Your task to perform on an android device: star an email in the gmail app Image 0: 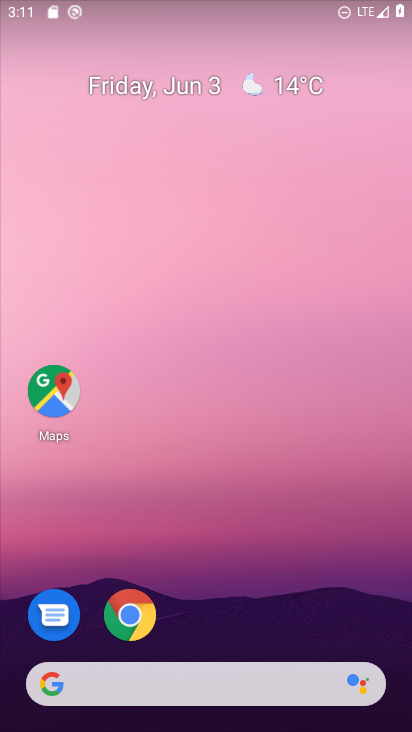
Step 0: drag from (179, 620) to (246, 84)
Your task to perform on an android device: star an email in the gmail app Image 1: 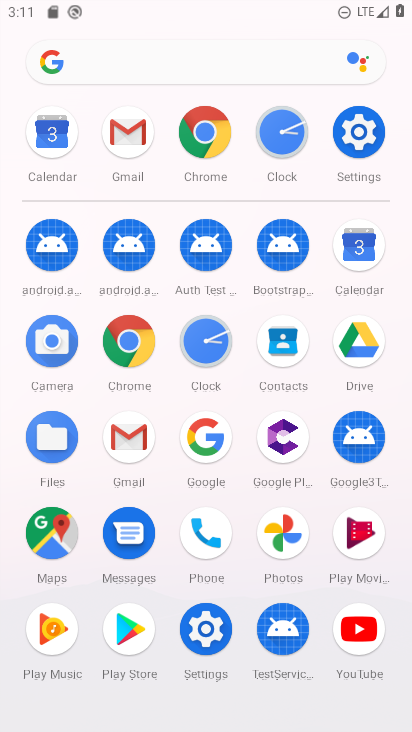
Step 1: click (144, 432)
Your task to perform on an android device: star an email in the gmail app Image 2: 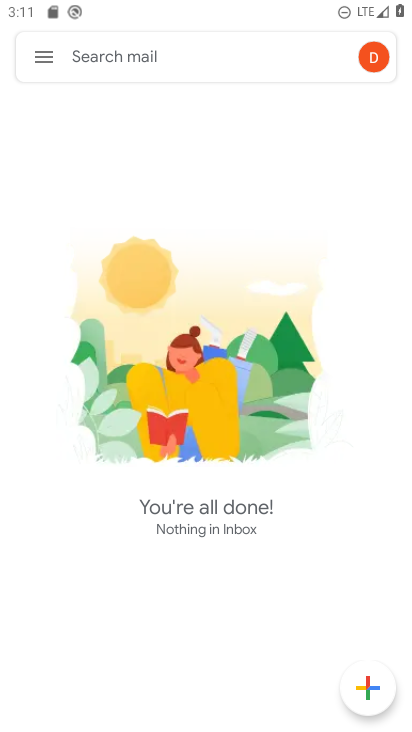
Step 2: drag from (171, 574) to (206, 197)
Your task to perform on an android device: star an email in the gmail app Image 3: 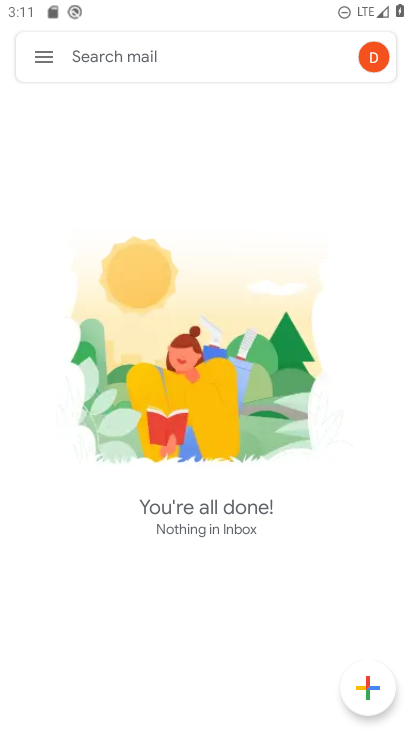
Step 3: click (49, 51)
Your task to perform on an android device: star an email in the gmail app Image 4: 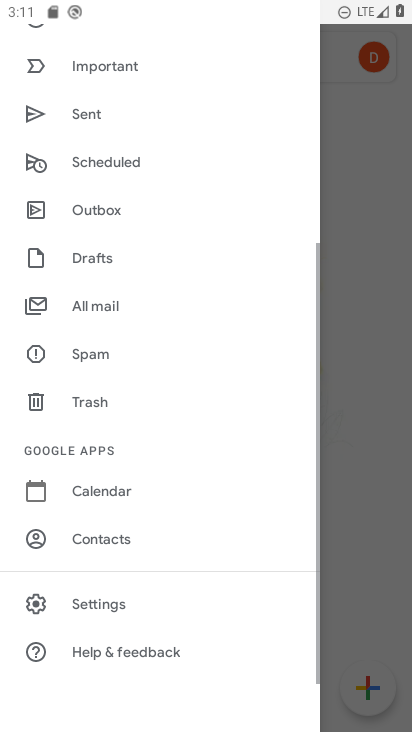
Step 4: drag from (152, 179) to (155, 703)
Your task to perform on an android device: star an email in the gmail app Image 5: 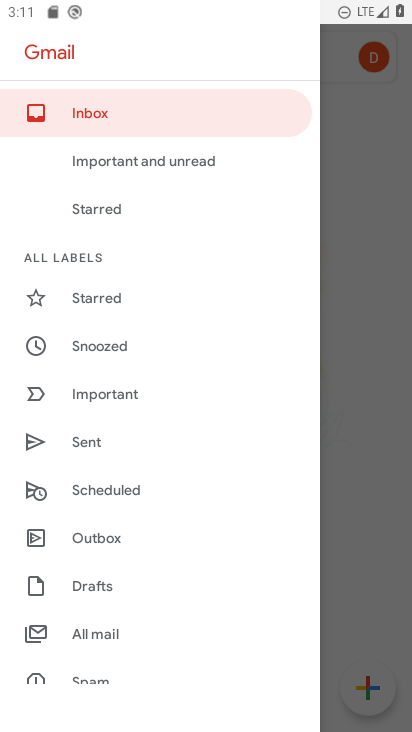
Step 5: click (101, 294)
Your task to perform on an android device: star an email in the gmail app Image 6: 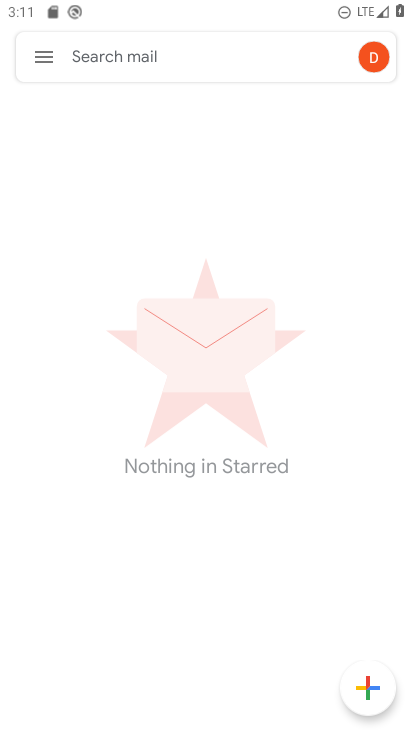
Step 6: task complete